Your task to perform on an android device: turn on javascript in the chrome app Image 0: 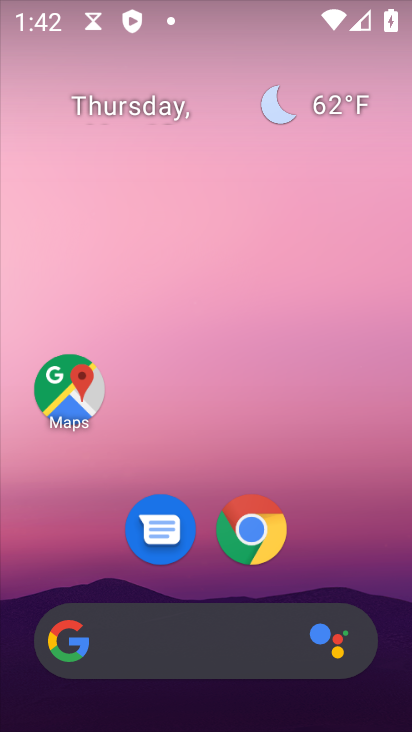
Step 0: click (251, 532)
Your task to perform on an android device: turn on javascript in the chrome app Image 1: 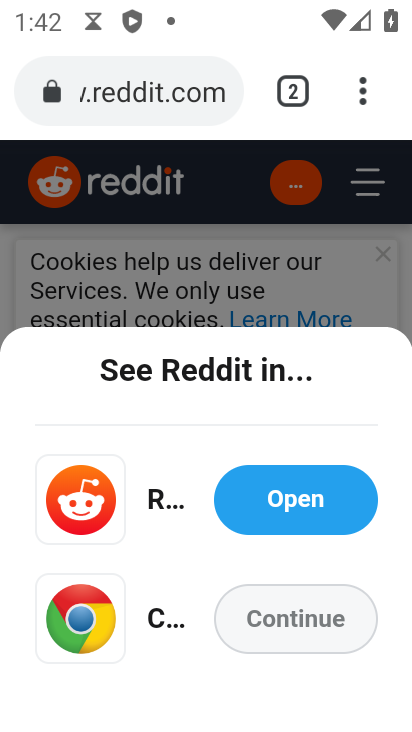
Step 1: click (362, 91)
Your task to perform on an android device: turn on javascript in the chrome app Image 2: 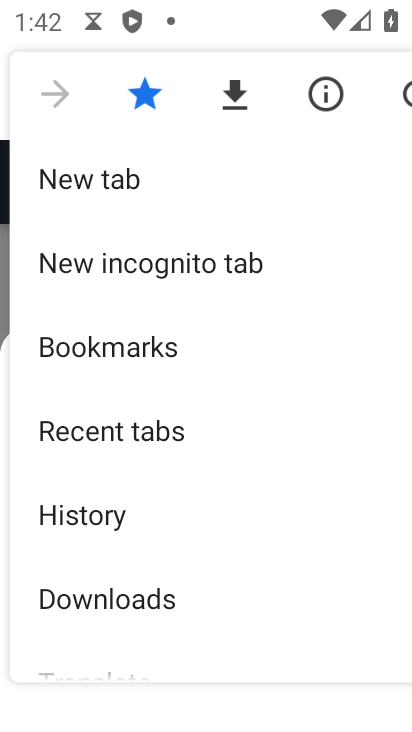
Step 2: drag from (144, 558) to (237, 432)
Your task to perform on an android device: turn on javascript in the chrome app Image 3: 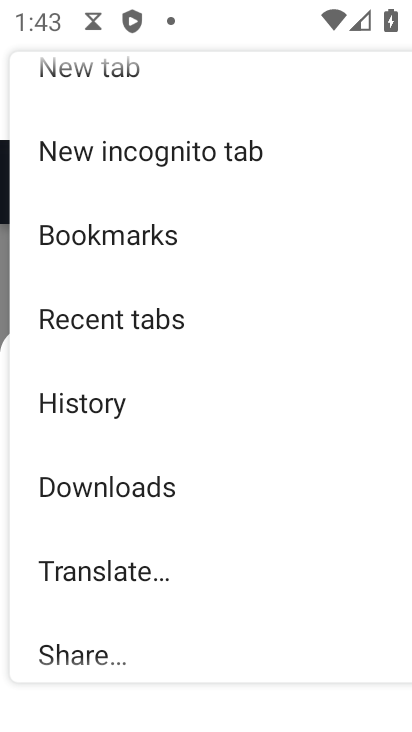
Step 3: drag from (134, 532) to (197, 435)
Your task to perform on an android device: turn on javascript in the chrome app Image 4: 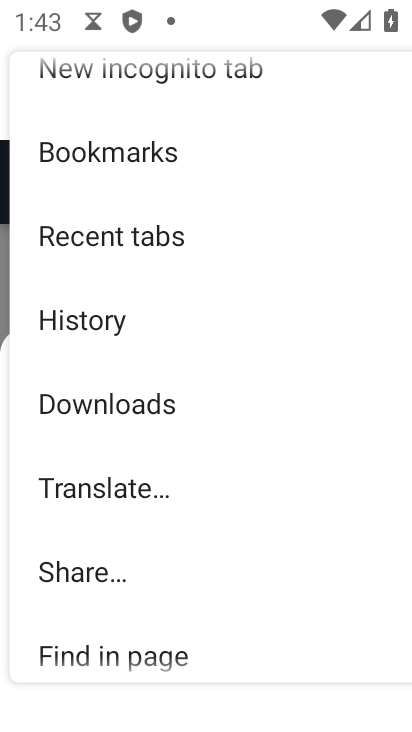
Step 4: drag from (92, 537) to (187, 410)
Your task to perform on an android device: turn on javascript in the chrome app Image 5: 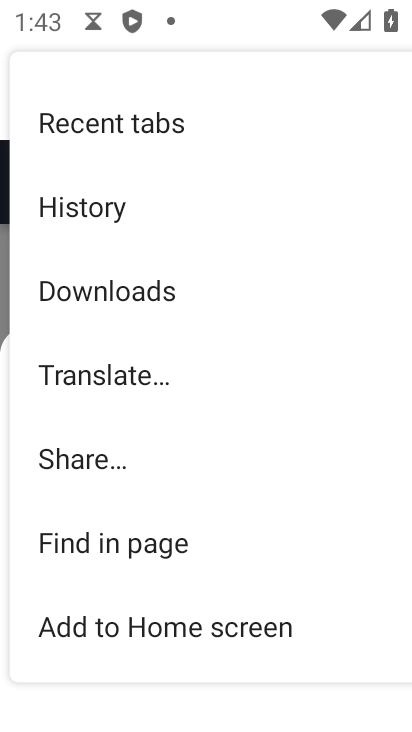
Step 5: drag from (116, 494) to (170, 389)
Your task to perform on an android device: turn on javascript in the chrome app Image 6: 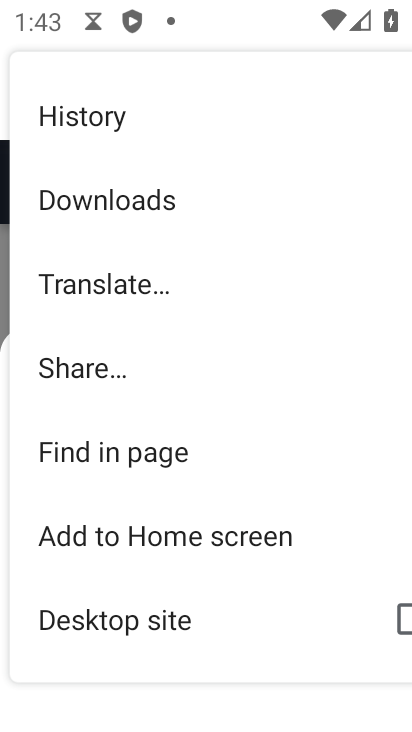
Step 6: drag from (112, 483) to (181, 382)
Your task to perform on an android device: turn on javascript in the chrome app Image 7: 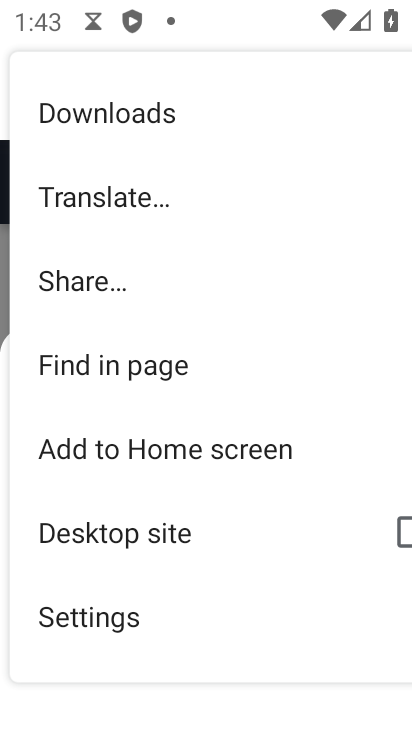
Step 7: drag from (83, 557) to (164, 436)
Your task to perform on an android device: turn on javascript in the chrome app Image 8: 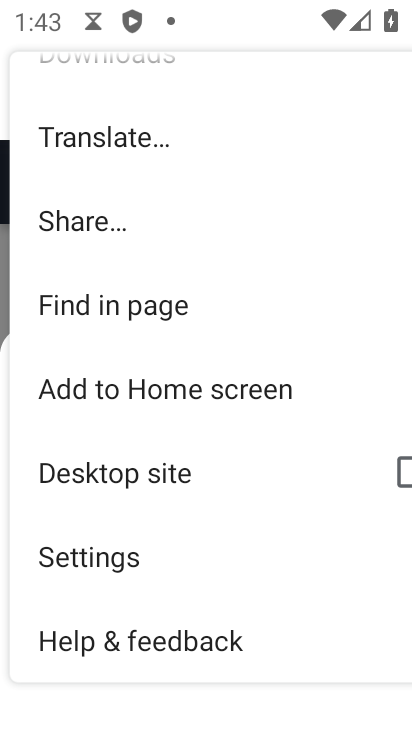
Step 8: click (117, 551)
Your task to perform on an android device: turn on javascript in the chrome app Image 9: 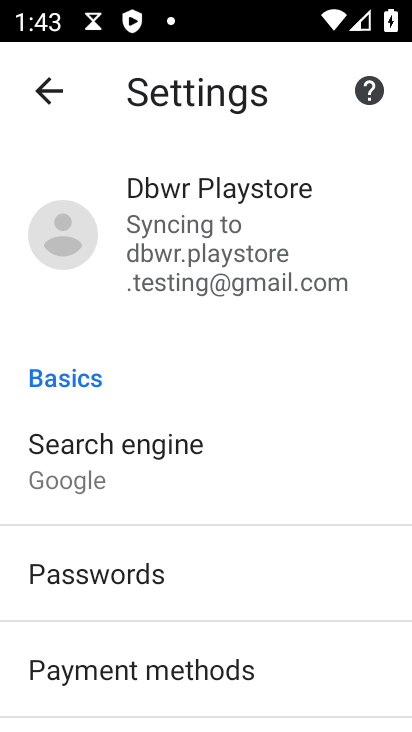
Step 9: drag from (142, 605) to (231, 469)
Your task to perform on an android device: turn on javascript in the chrome app Image 10: 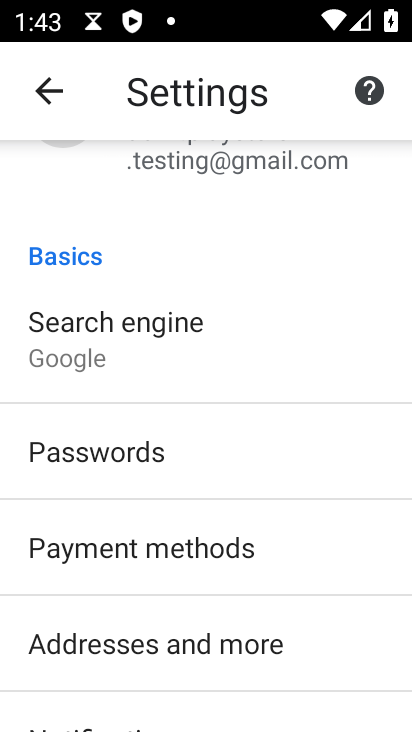
Step 10: drag from (119, 573) to (233, 437)
Your task to perform on an android device: turn on javascript in the chrome app Image 11: 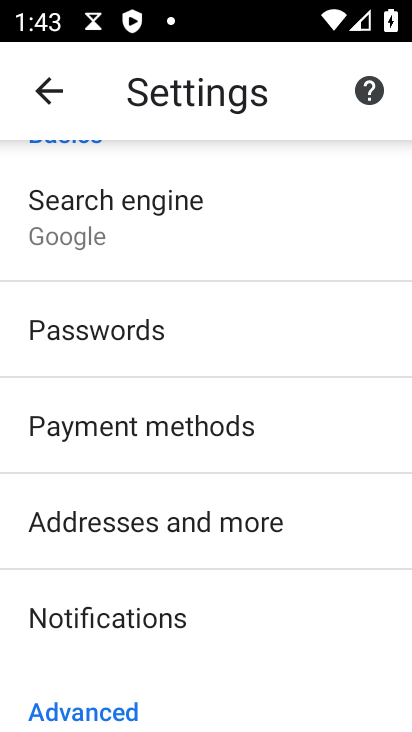
Step 11: drag from (129, 592) to (231, 458)
Your task to perform on an android device: turn on javascript in the chrome app Image 12: 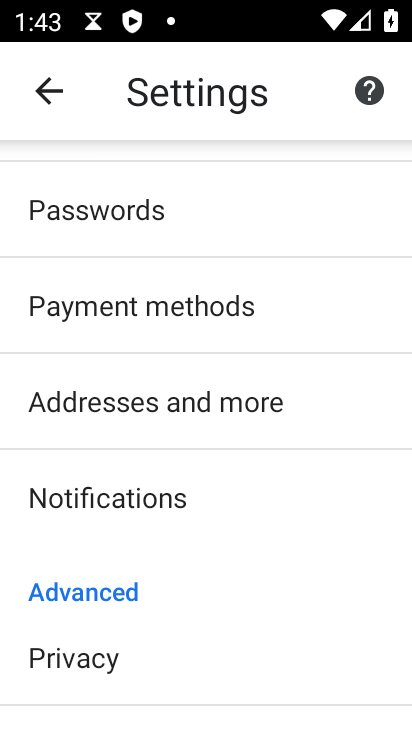
Step 12: drag from (102, 556) to (187, 434)
Your task to perform on an android device: turn on javascript in the chrome app Image 13: 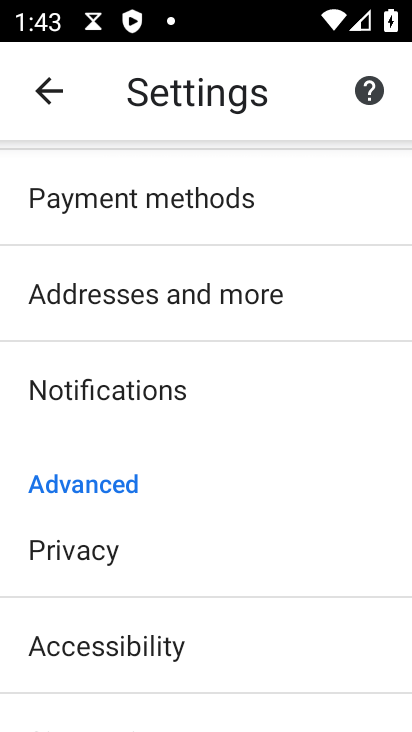
Step 13: drag from (99, 624) to (164, 506)
Your task to perform on an android device: turn on javascript in the chrome app Image 14: 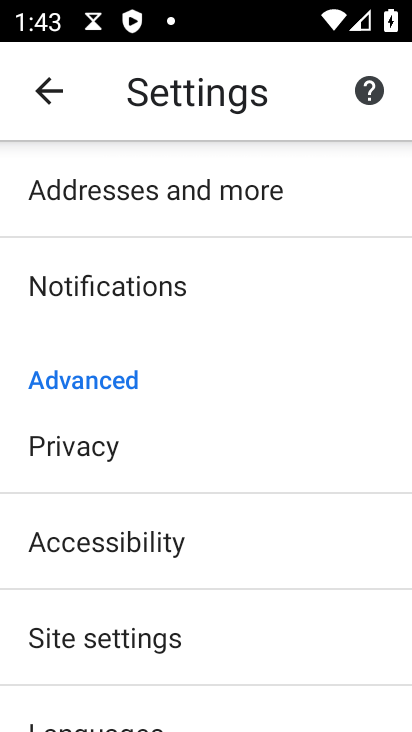
Step 14: drag from (98, 610) to (192, 485)
Your task to perform on an android device: turn on javascript in the chrome app Image 15: 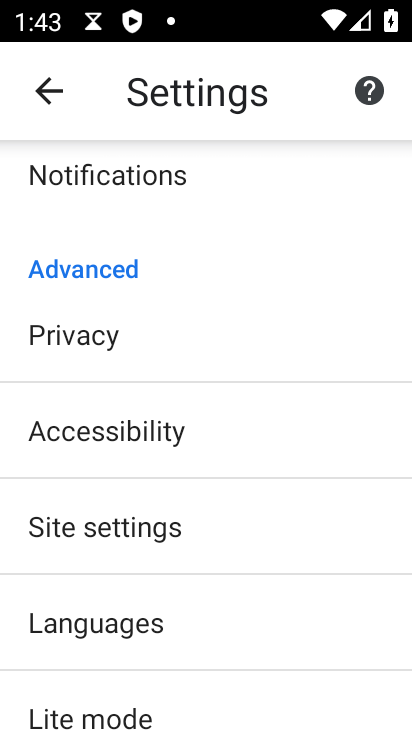
Step 15: click (135, 536)
Your task to perform on an android device: turn on javascript in the chrome app Image 16: 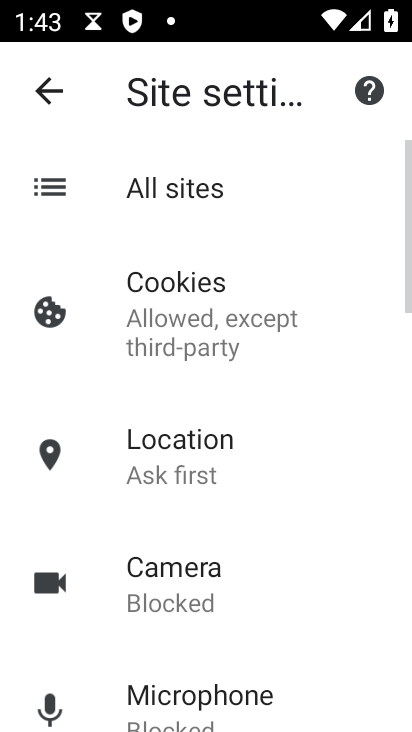
Step 16: drag from (180, 639) to (264, 520)
Your task to perform on an android device: turn on javascript in the chrome app Image 17: 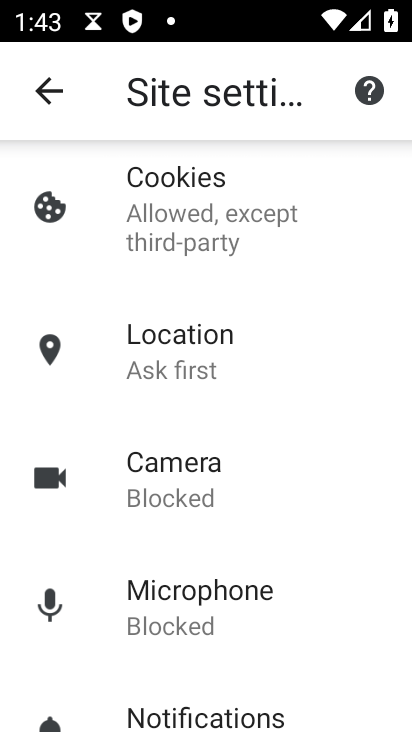
Step 17: drag from (190, 655) to (283, 507)
Your task to perform on an android device: turn on javascript in the chrome app Image 18: 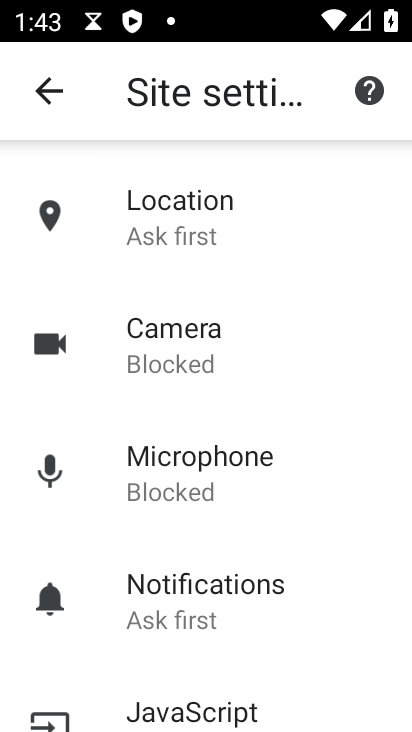
Step 18: drag from (186, 641) to (273, 490)
Your task to perform on an android device: turn on javascript in the chrome app Image 19: 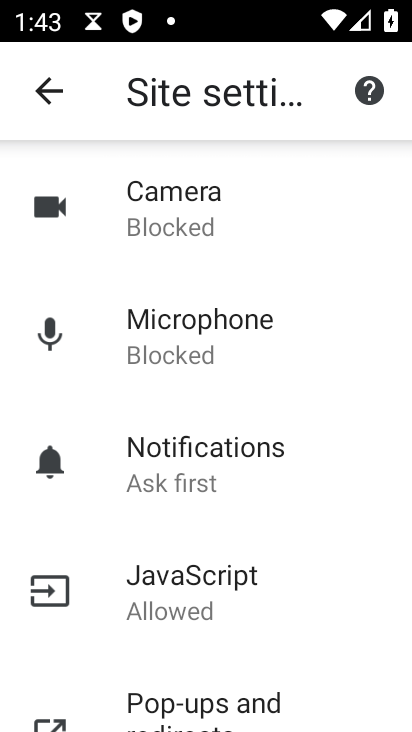
Step 19: click (223, 564)
Your task to perform on an android device: turn on javascript in the chrome app Image 20: 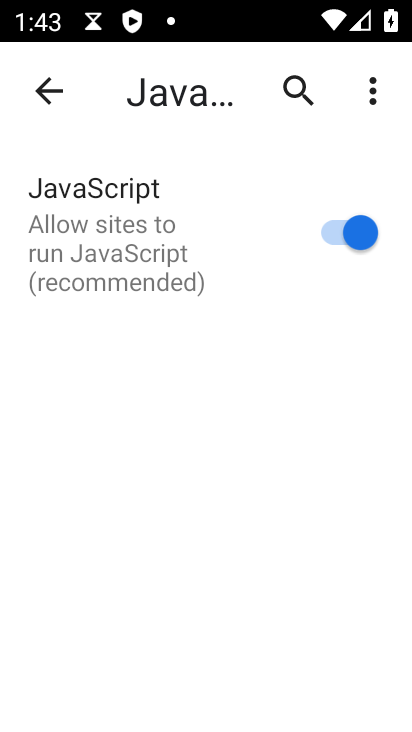
Step 20: task complete